Your task to perform on an android device: Go to Yahoo.com Image 0: 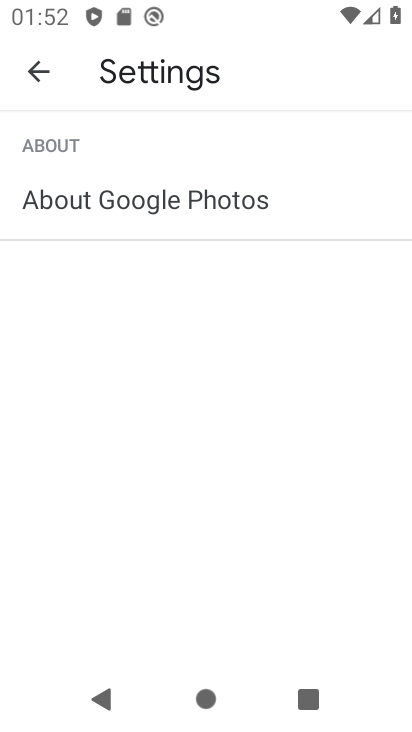
Step 0: press home button
Your task to perform on an android device: Go to Yahoo.com Image 1: 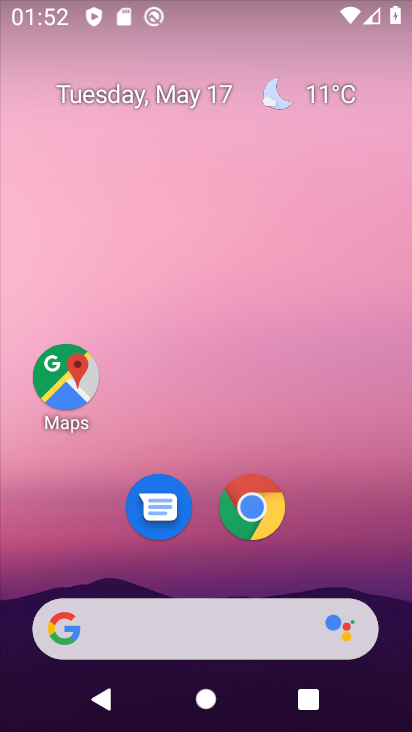
Step 1: click (253, 514)
Your task to perform on an android device: Go to Yahoo.com Image 2: 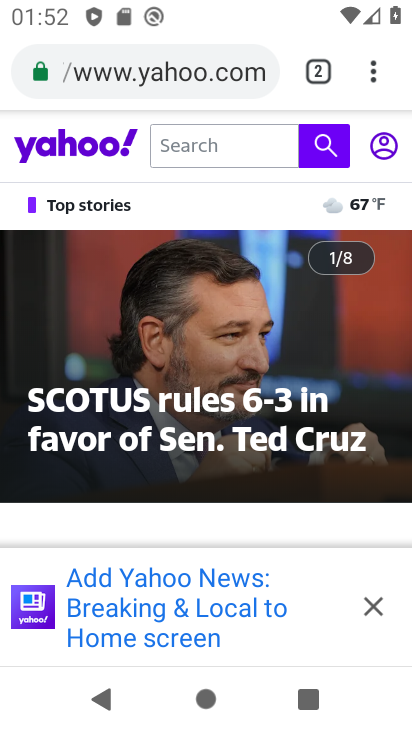
Step 2: task complete